Your task to perform on an android device: Open the calendar and show me this week's events? Image 0: 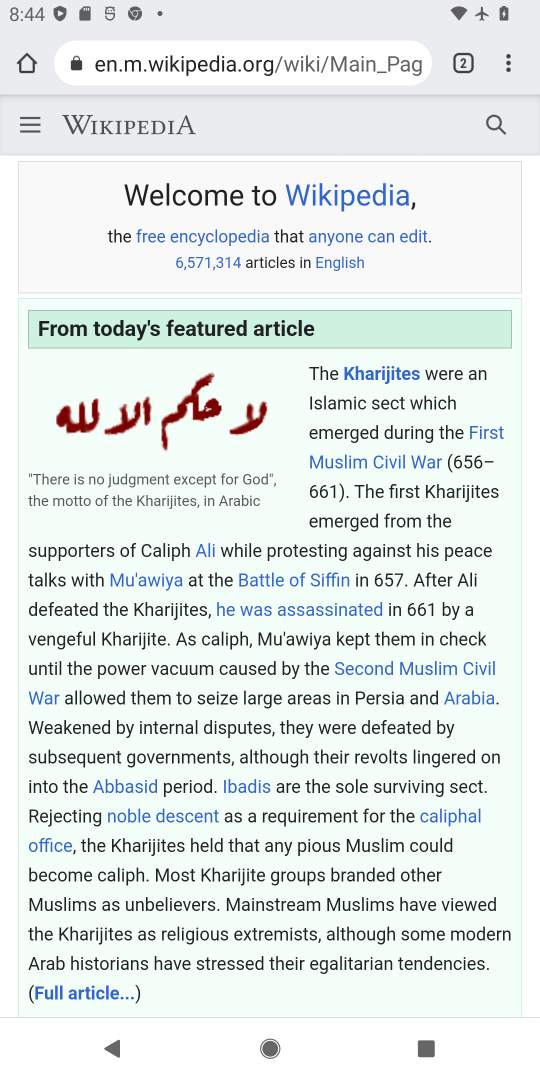
Step 0: press home button
Your task to perform on an android device: Open the calendar and show me this week's events? Image 1: 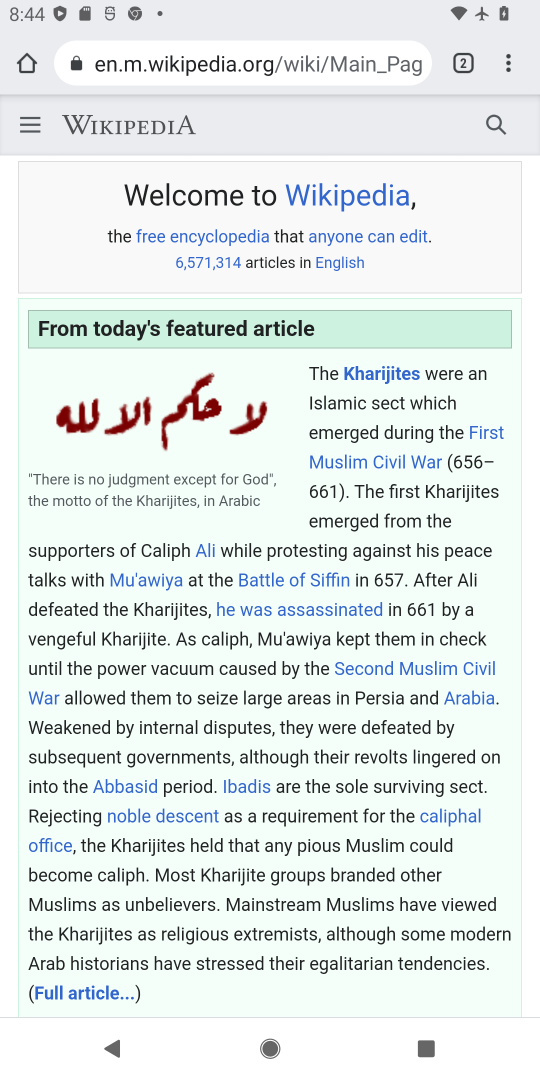
Step 1: press home button
Your task to perform on an android device: Open the calendar and show me this week's events? Image 2: 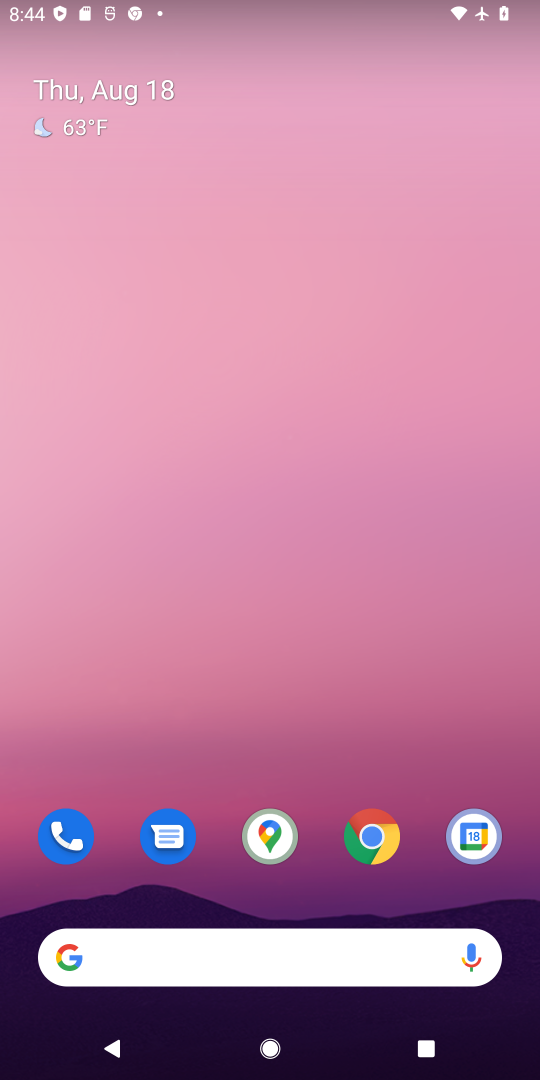
Step 2: drag from (303, 866) to (343, 90)
Your task to perform on an android device: Open the calendar and show me this week's events? Image 3: 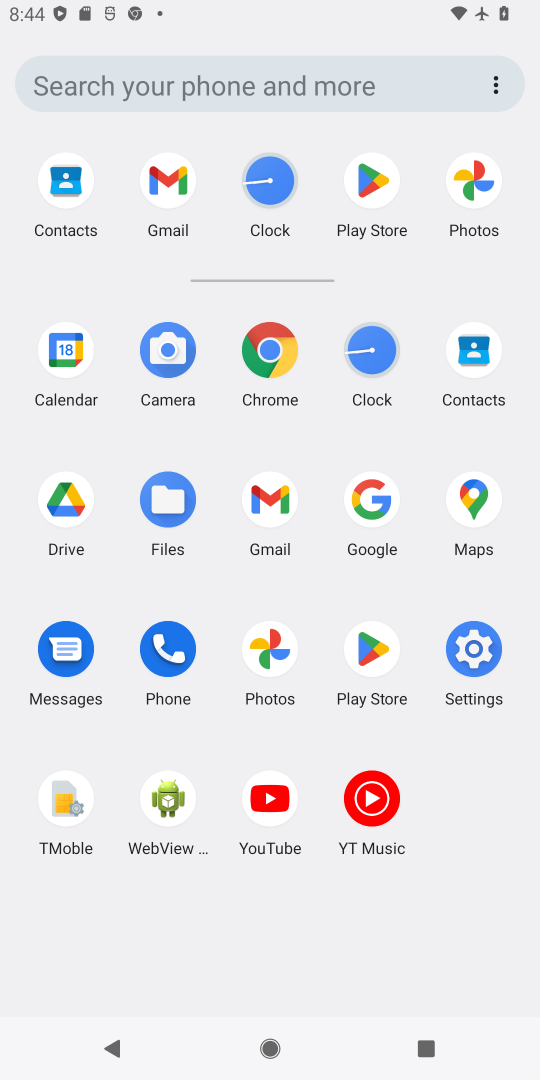
Step 3: click (69, 352)
Your task to perform on an android device: Open the calendar and show me this week's events? Image 4: 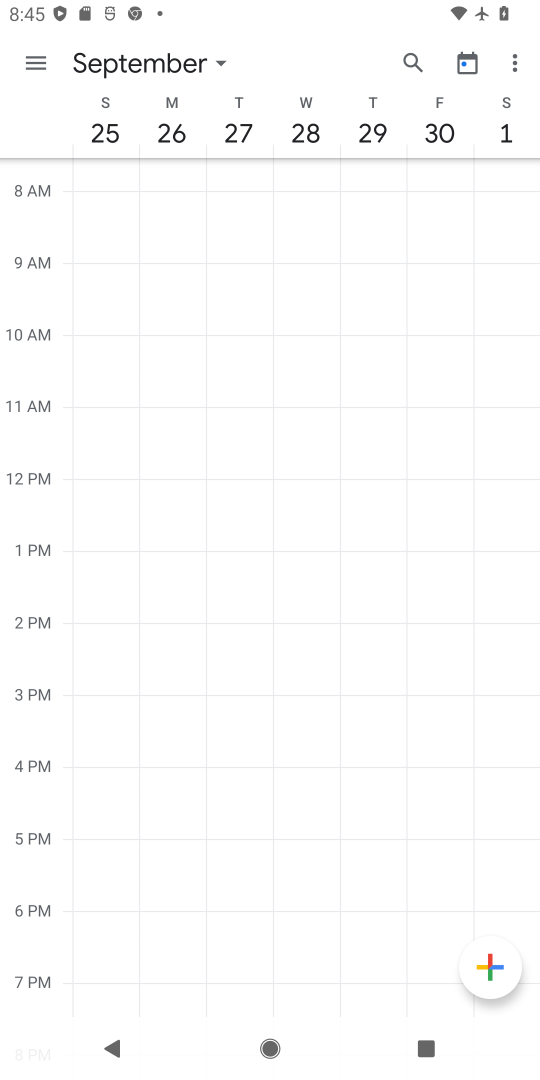
Step 4: click (180, 80)
Your task to perform on an android device: Open the calendar and show me this week's events? Image 5: 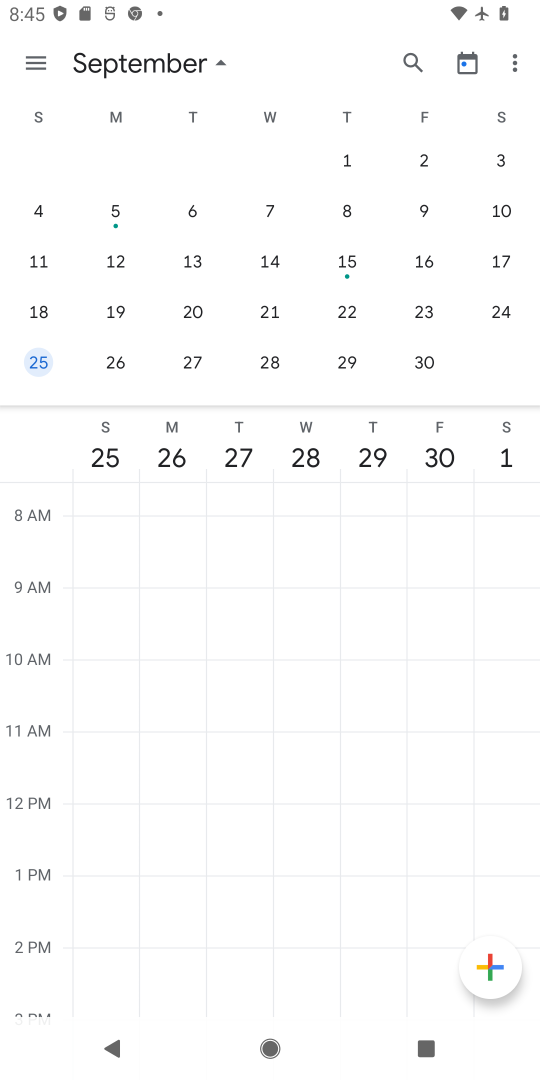
Step 5: click (195, 65)
Your task to perform on an android device: Open the calendar and show me this week's events? Image 6: 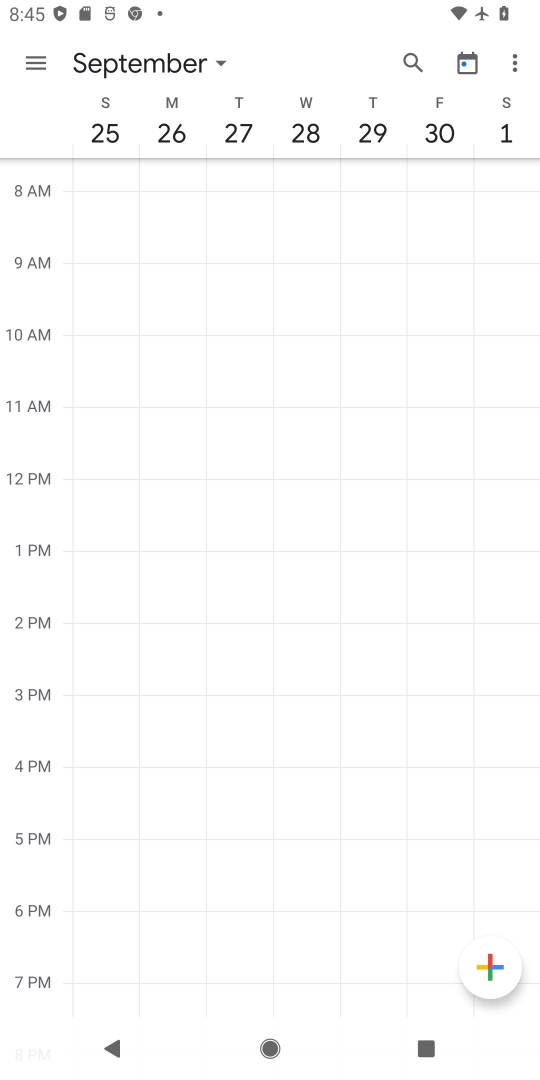
Step 6: click (195, 65)
Your task to perform on an android device: Open the calendar and show me this week's events? Image 7: 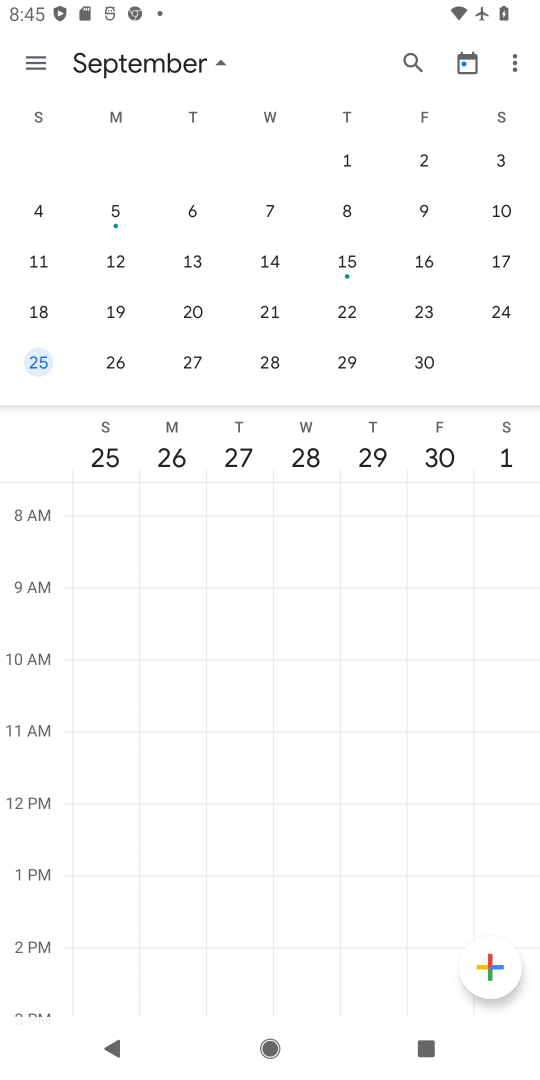
Step 7: drag from (90, 189) to (535, 236)
Your task to perform on an android device: Open the calendar and show me this week's events? Image 8: 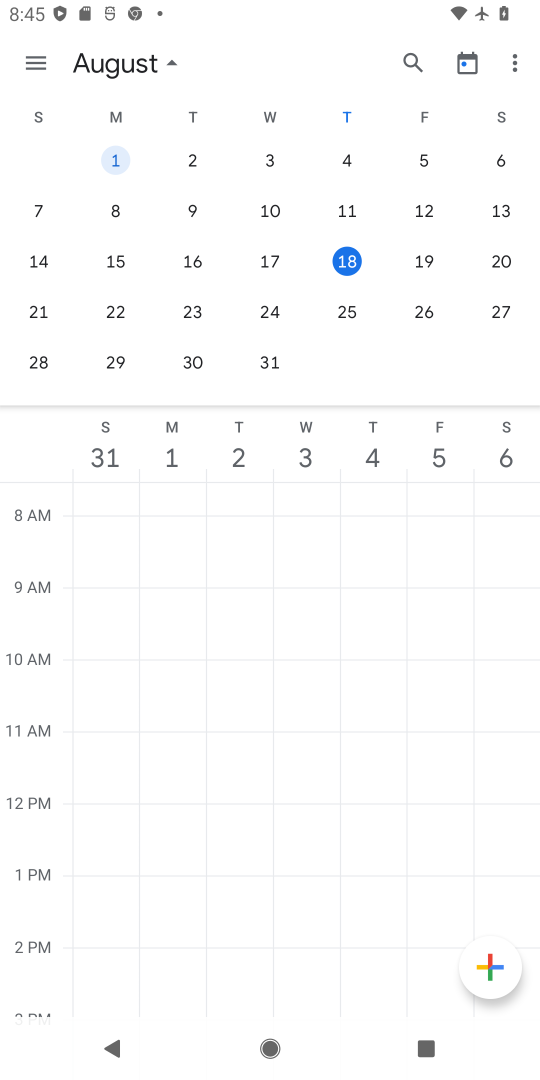
Step 8: click (323, 258)
Your task to perform on an android device: Open the calendar and show me this week's events? Image 9: 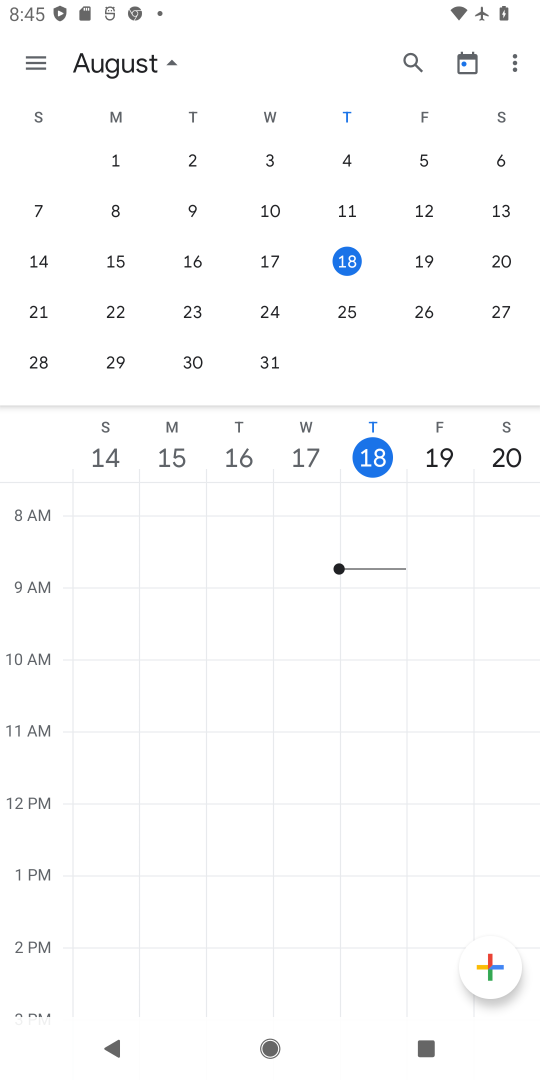
Step 9: task complete